Your task to perform on an android device: manage bookmarks in the chrome app Image 0: 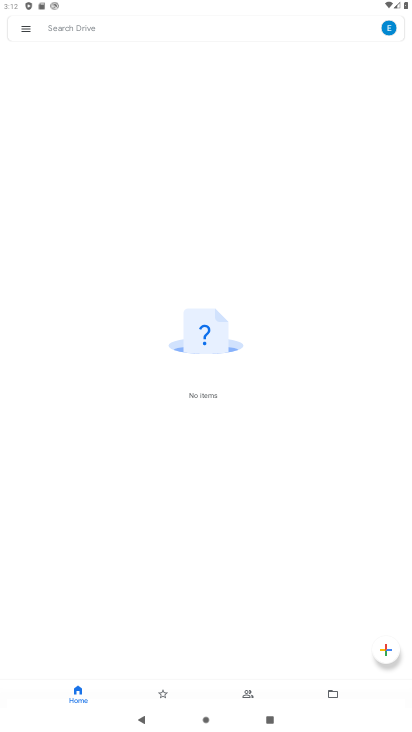
Step 0: press home button
Your task to perform on an android device: manage bookmarks in the chrome app Image 1: 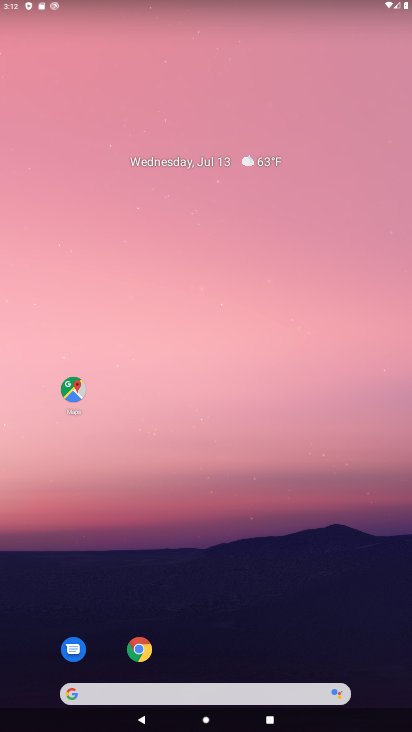
Step 1: click (142, 654)
Your task to perform on an android device: manage bookmarks in the chrome app Image 2: 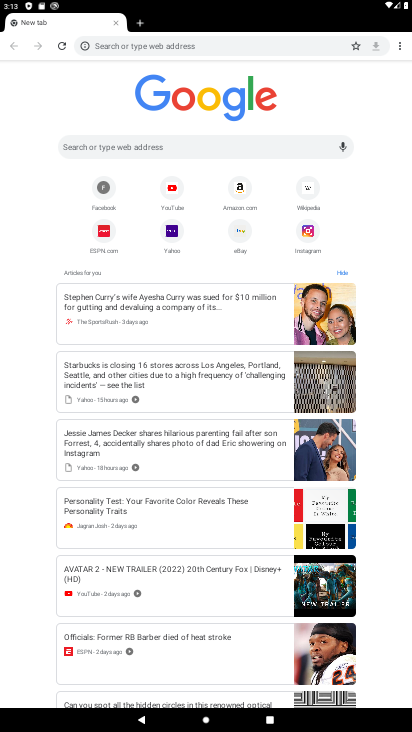
Step 2: click (401, 46)
Your task to perform on an android device: manage bookmarks in the chrome app Image 3: 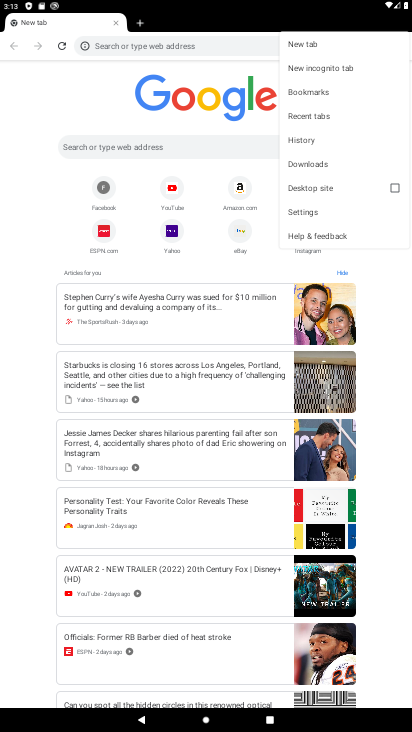
Step 3: click (312, 95)
Your task to perform on an android device: manage bookmarks in the chrome app Image 4: 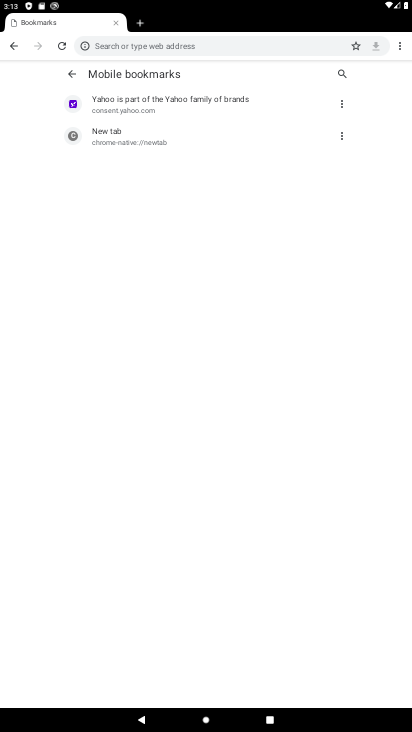
Step 4: click (341, 106)
Your task to perform on an android device: manage bookmarks in the chrome app Image 5: 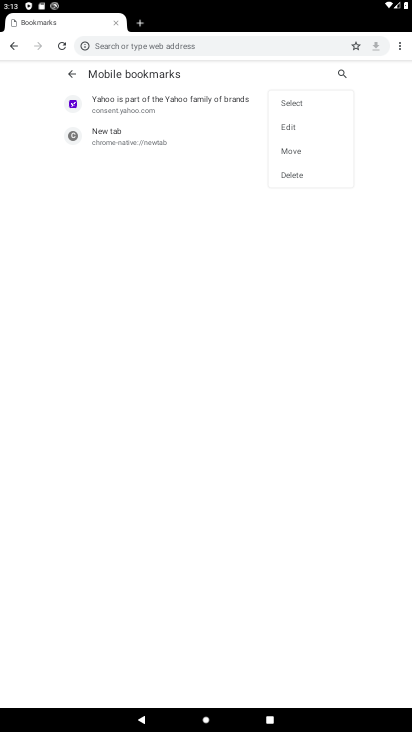
Step 5: click (311, 167)
Your task to perform on an android device: manage bookmarks in the chrome app Image 6: 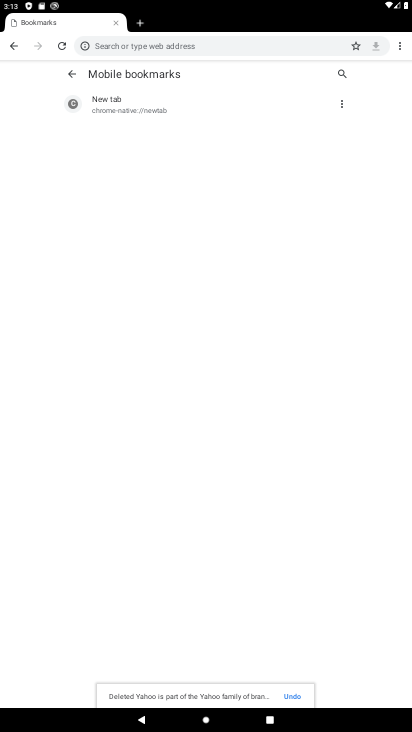
Step 6: task complete